Your task to perform on an android device: Open eBay Image 0: 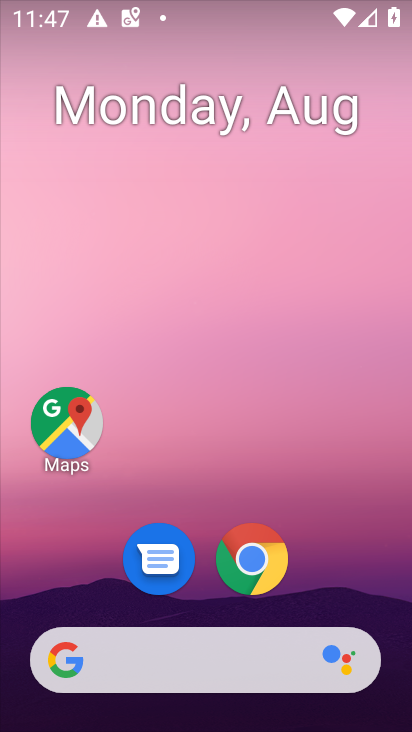
Step 0: drag from (185, 595) to (280, 4)
Your task to perform on an android device: Open eBay Image 1: 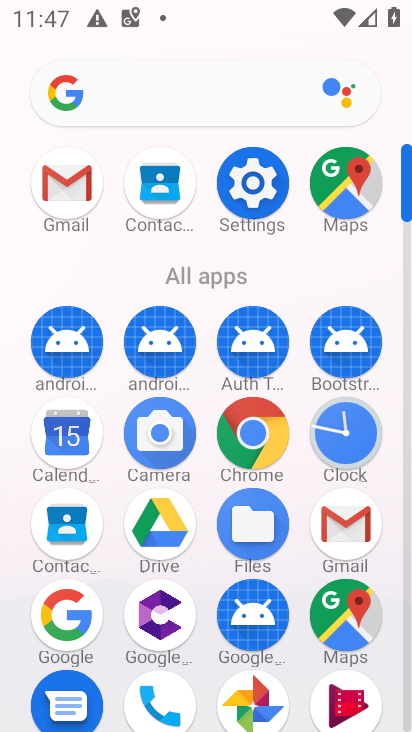
Step 1: click (256, 441)
Your task to perform on an android device: Open eBay Image 2: 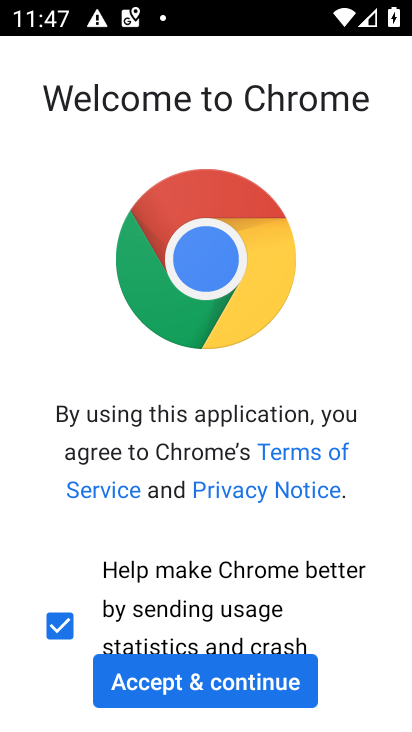
Step 2: click (253, 688)
Your task to perform on an android device: Open eBay Image 3: 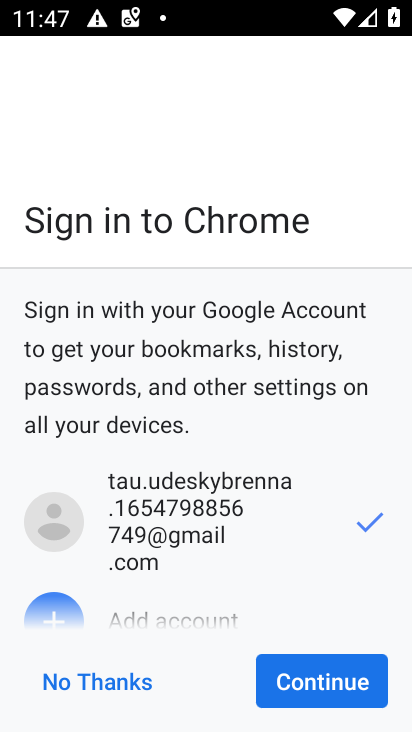
Step 3: click (339, 683)
Your task to perform on an android device: Open eBay Image 4: 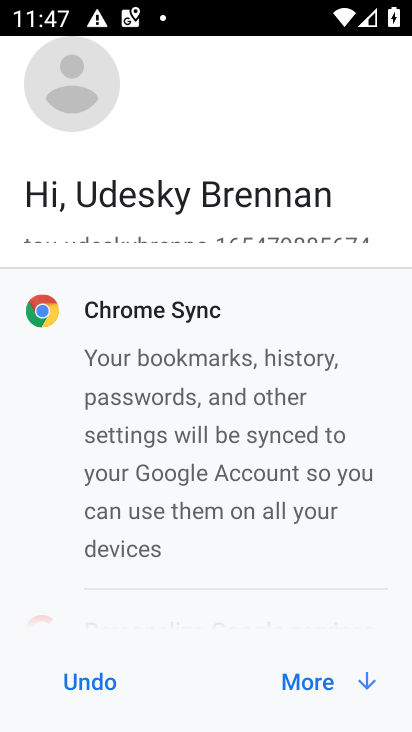
Step 4: click (332, 684)
Your task to perform on an android device: Open eBay Image 5: 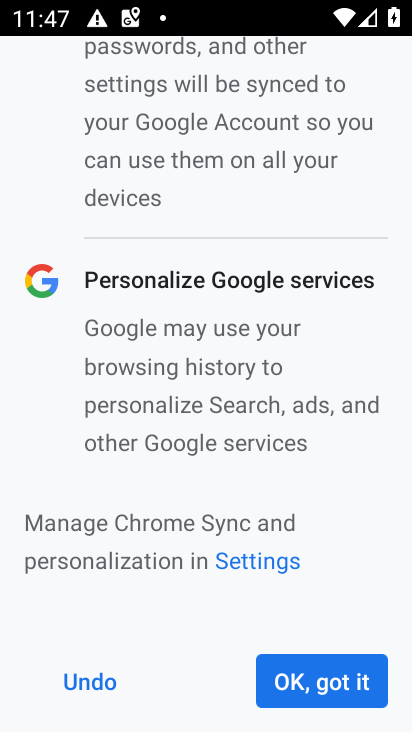
Step 5: click (331, 685)
Your task to perform on an android device: Open eBay Image 6: 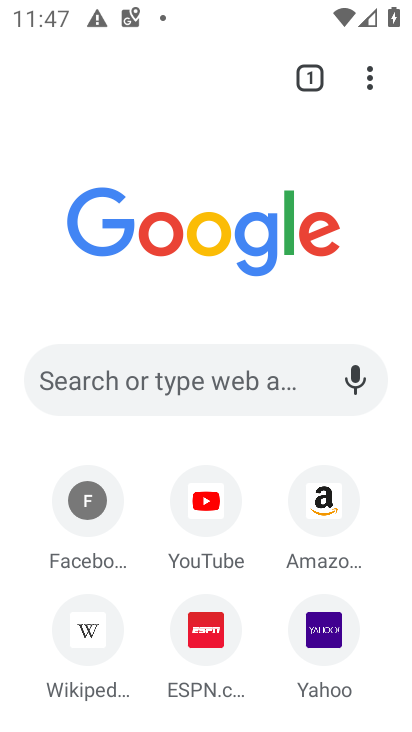
Step 6: click (185, 364)
Your task to perform on an android device: Open eBay Image 7: 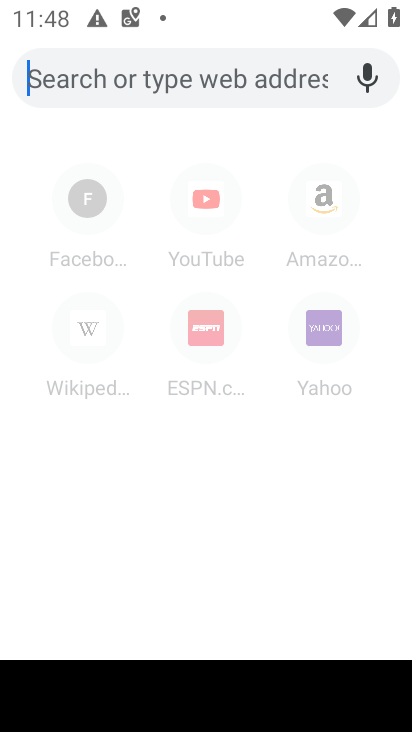
Step 7: type "eBay"
Your task to perform on an android device: Open eBay Image 8: 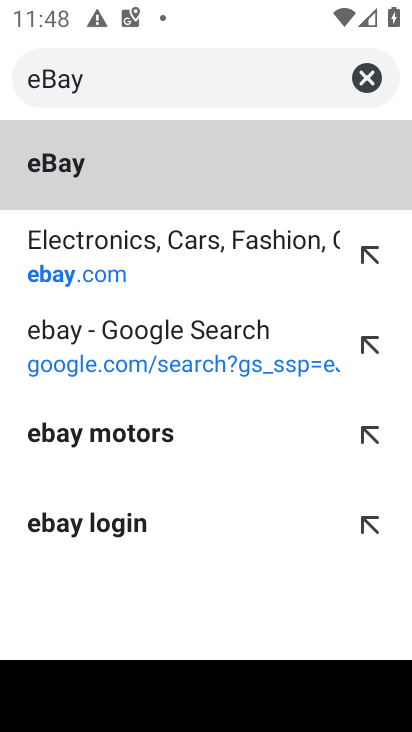
Step 8: click (118, 163)
Your task to perform on an android device: Open eBay Image 9: 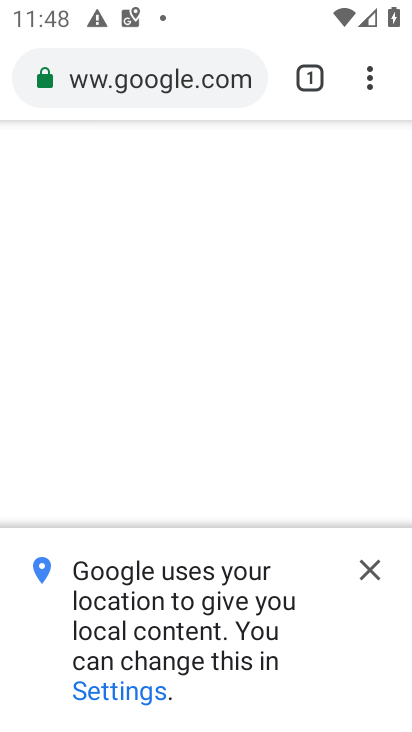
Step 9: click (365, 567)
Your task to perform on an android device: Open eBay Image 10: 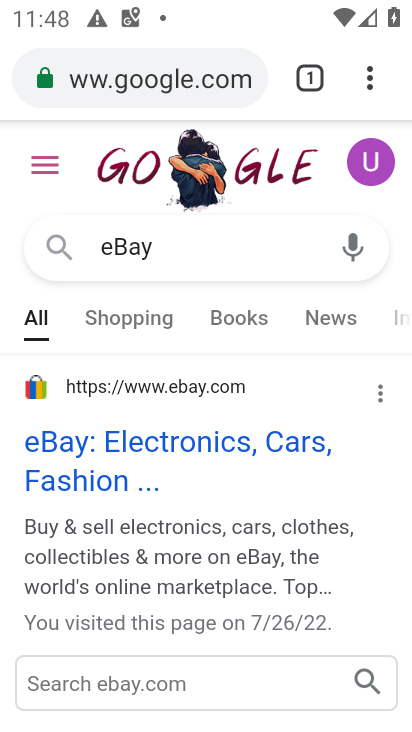
Step 10: task complete